Your task to perform on an android device: Open display settings Image 0: 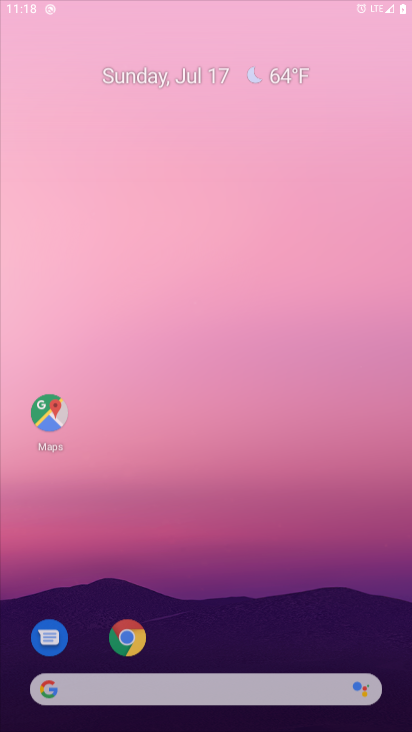
Step 0: press home button
Your task to perform on an android device: Open display settings Image 1: 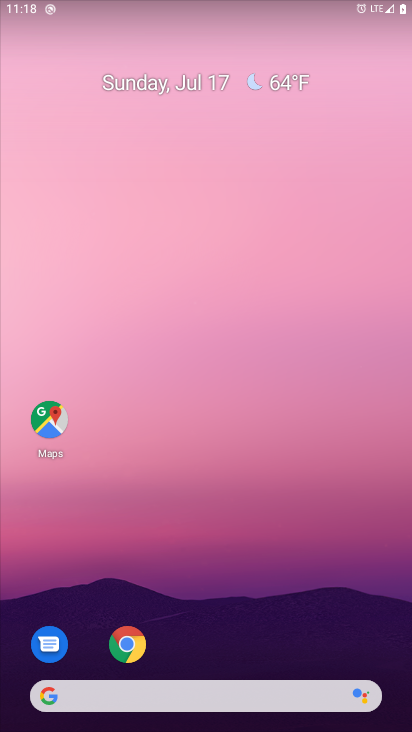
Step 1: drag from (220, 386) to (229, 73)
Your task to perform on an android device: Open display settings Image 2: 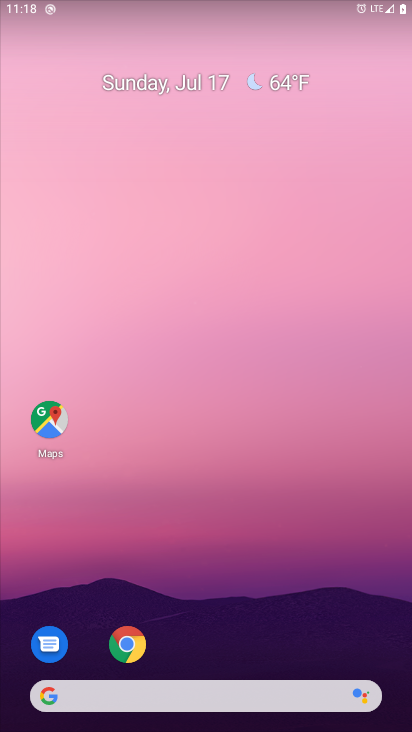
Step 2: drag from (230, 488) to (251, 29)
Your task to perform on an android device: Open display settings Image 3: 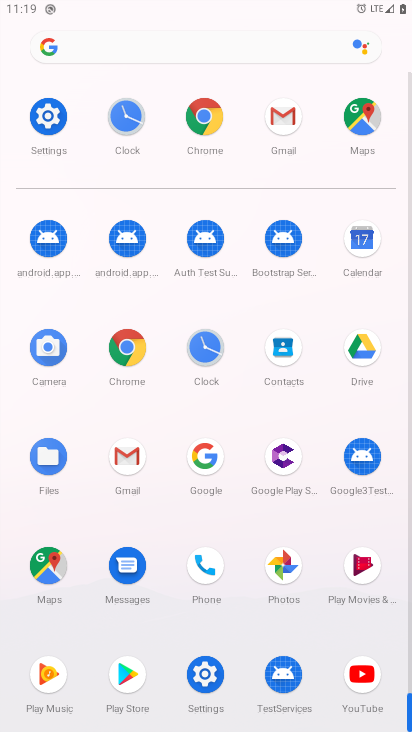
Step 3: click (46, 121)
Your task to perform on an android device: Open display settings Image 4: 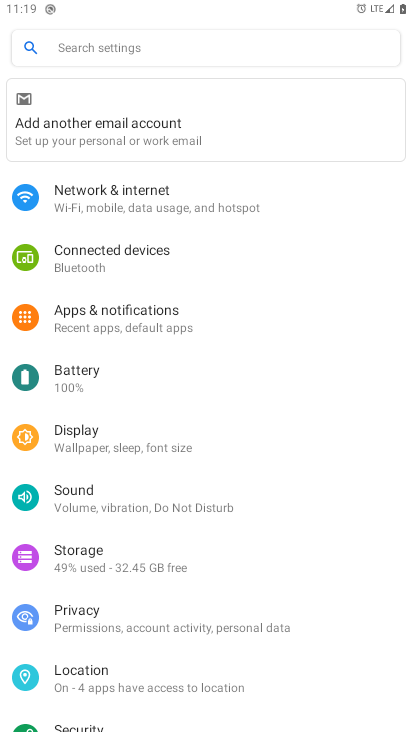
Step 4: click (87, 441)
Your task to perform on an android device: Open display settings Image 5: 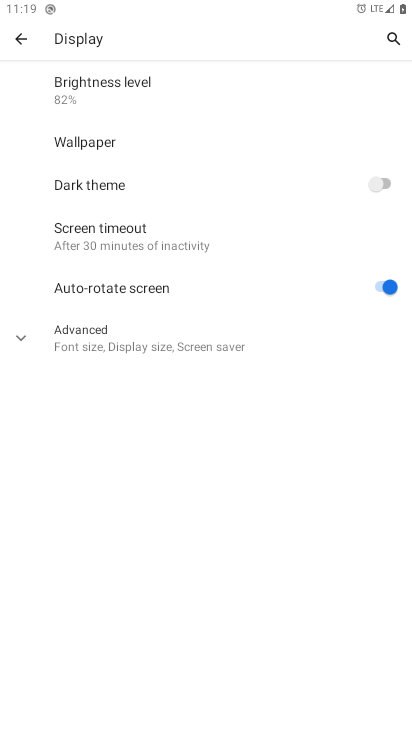
Step 5: task complete